Your task to perform on an android device: turn pop-ups on in chrome Image 0: 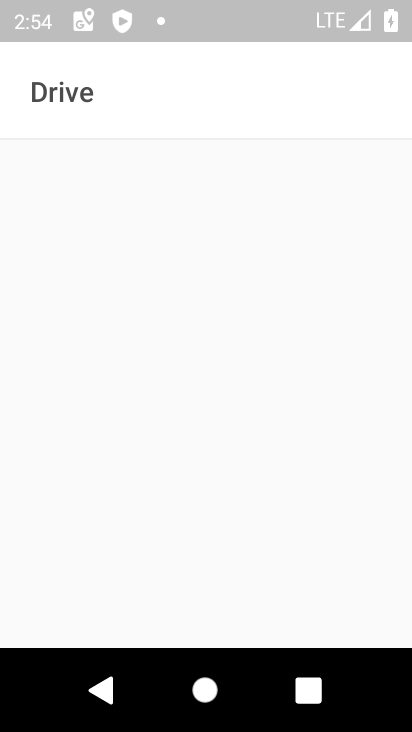
Step 0: press home button
Your task to perform on an android device: turn pop-ups on in chrome Image 1: 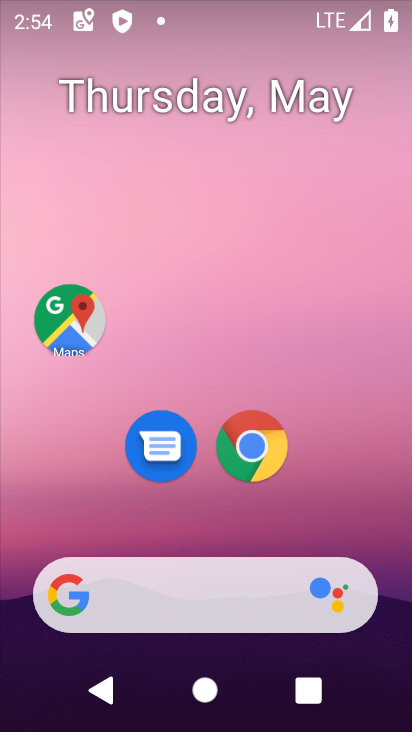
Step 1: click (243, 442)
Your task to perform on an android device: turn pop-ups on in chrome Image 2: 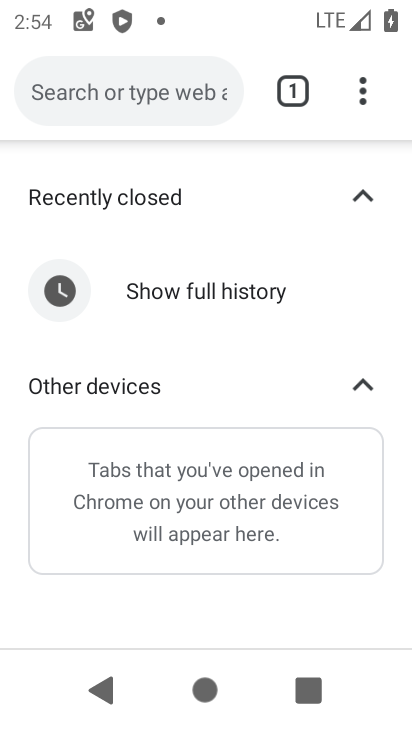
Step 2: click (351, 99)
Your task to perform on an android device: turn pop-ups on in chrome Image 3: 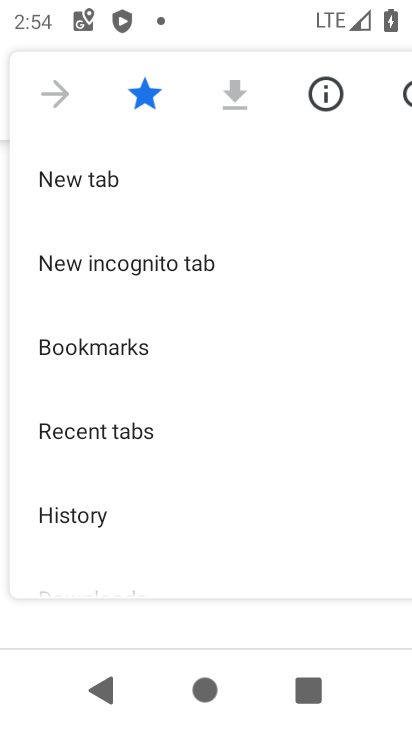
Step 3: drag from (115, 560) to (104, 157)
Your task to perform on an android device: turn pop-ups on in chrome Image 4: 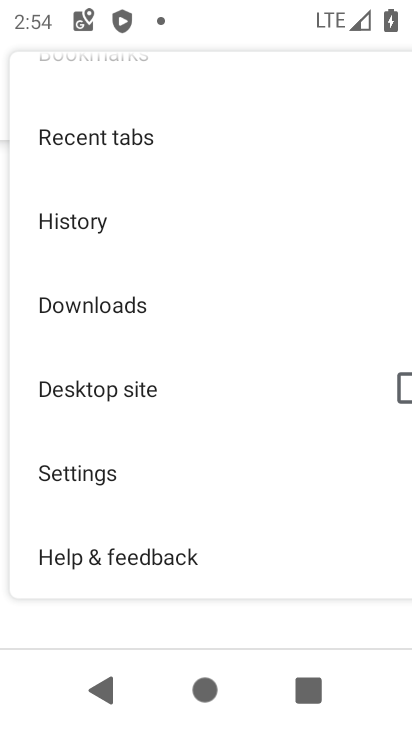
Step 4: click (64, 477)
Your task to perform on an android device: turn pop-ups on in chrome Image 5: 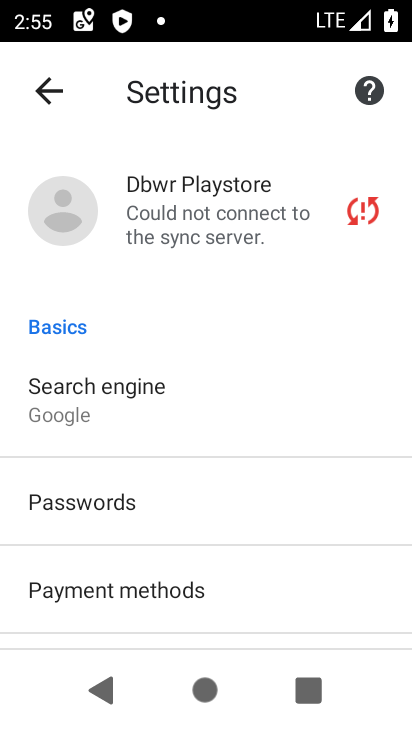
Step 5: drag from (157, 598) to (235, 347)
Your task to perform on an android device: turn pop-ups on in chrome Image 6: 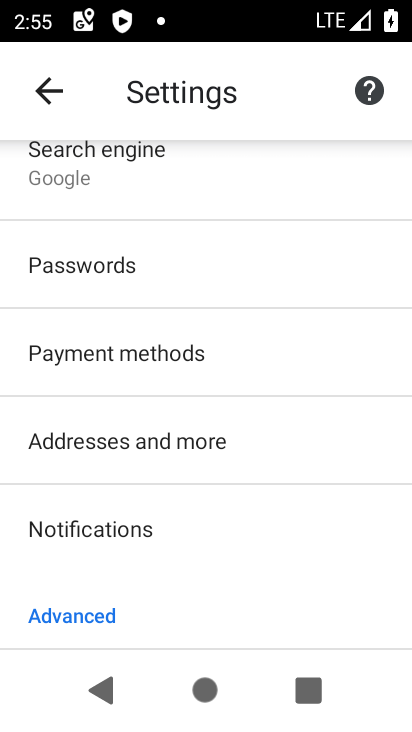
Step 6: drag from (203, 571) to (260, 379)
Your task to perform on an android device: turn pop-ups on in chrome Image 7: 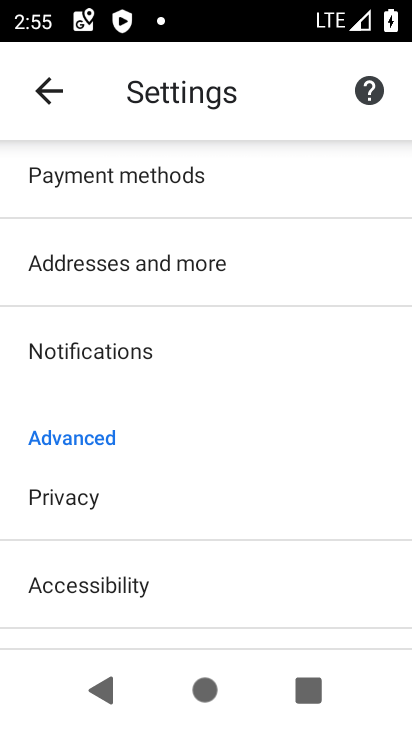
Step 7: drag from (173, 582) to (177, 287)
Your task to perform on an android device: turn pop-ups on in chrome Image 8: 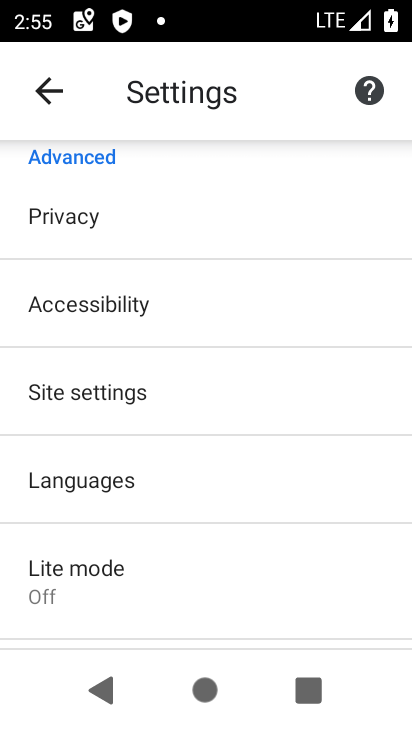
Step 8: click (161, 389)
Your task to perform on an android device: turn pop-ups on in chrome Image 9: 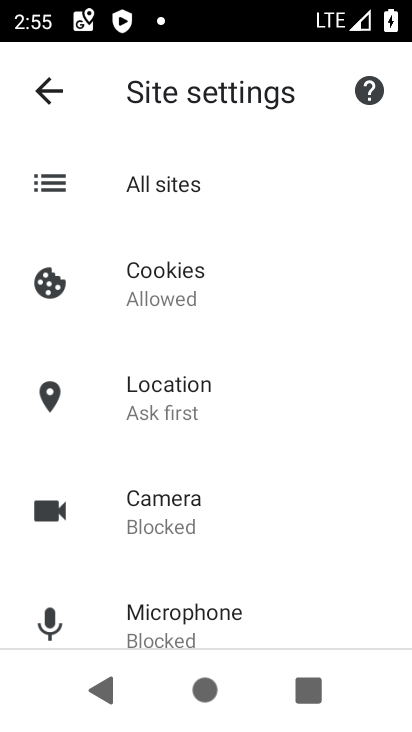
Step 9: drag from (187, 561) to (241, 228)
Your task to perform on an android device: turn pop-ups on in chrome Image 10: 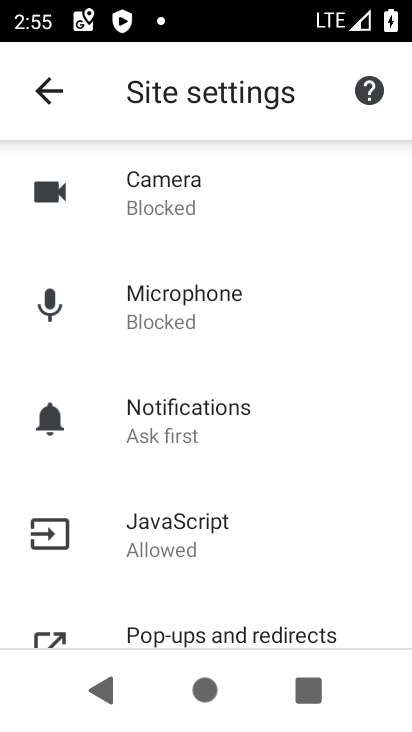
Step 10: drag from (221, 569) to (248, 404)
Your task to perform on an android device: turn pop-ups on in chrome Image 11: 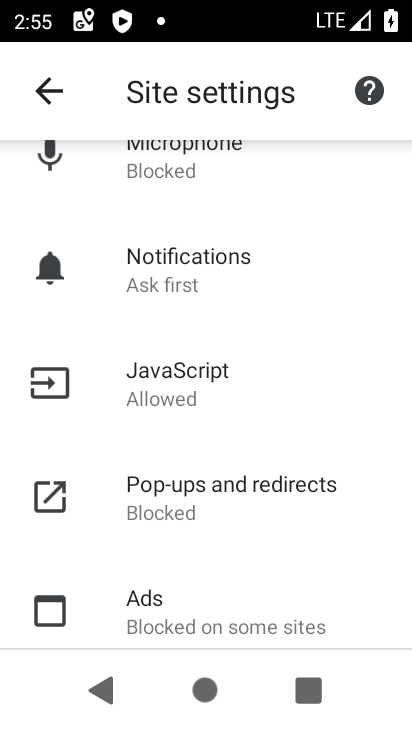
Step 11: click (242, 505)
Your task to perform on an android device: turn pop-ups on in chrome Image 12: 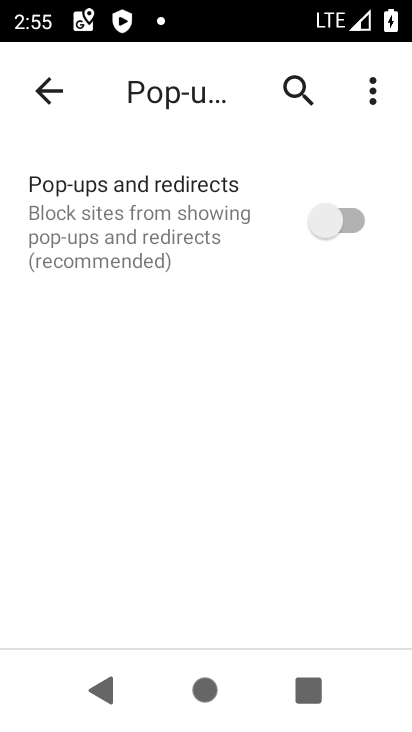
Step 12: click (334, 222)
Your task to perform on an android device: turn pop-ups on in chrome Image 13: 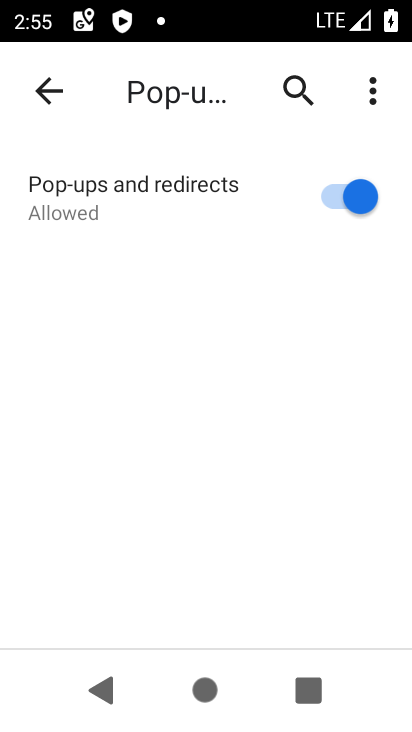
Step 13: task complete